Your task to perform on an android device: Go to notification settings Image 0: 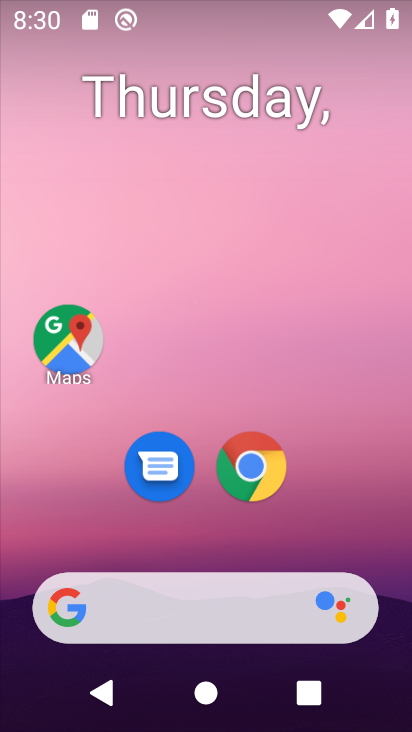
Step 0: drag from (210, 329) to (238, 18)
Your task to perform on an android device: Go to notification settings Image 1: 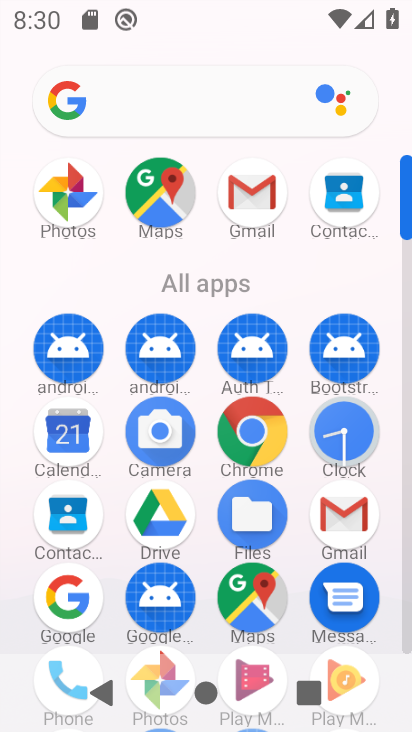
Step 1: drag from (171, 657) to (249, 342)
Your task to perform on an android device: Go to notification settings Image 2: 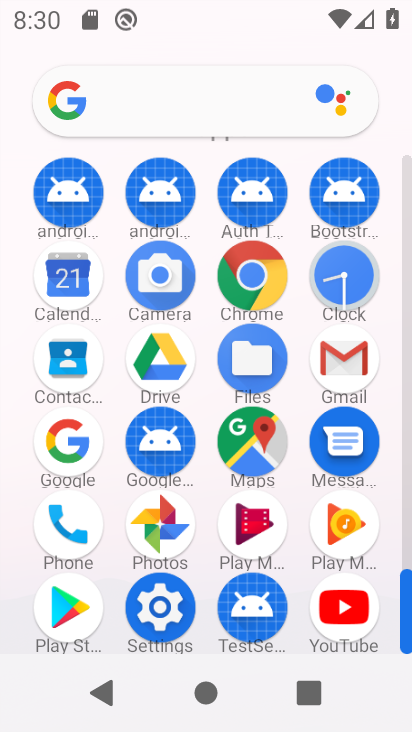
Step 2: click (164, 611)
Your task to perform on an android device: Go to notification settings Image 3: 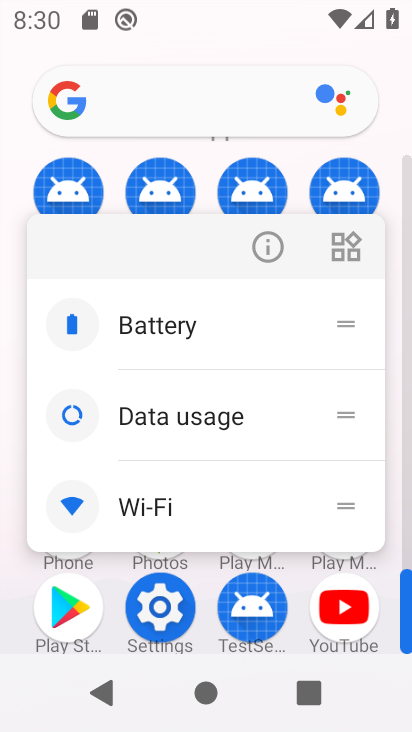
Step 3: click (175, 626)
Your task to perform on an android device: Go to notification settings Image 4: 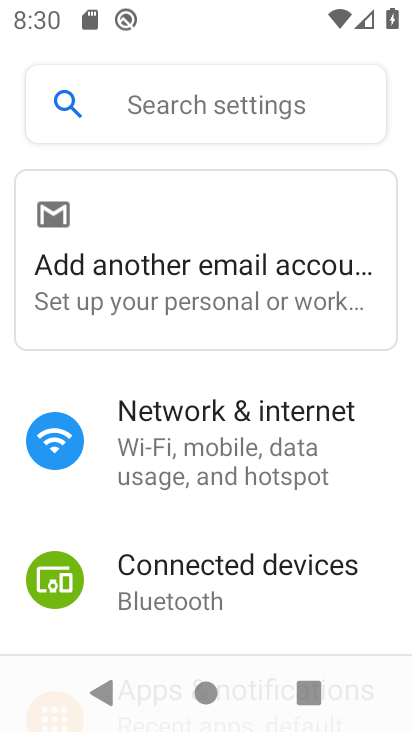
Step 4: drag from (207, 624) to (323, 258)
Your task to perform on an android device: Go to notification settings Image 5: 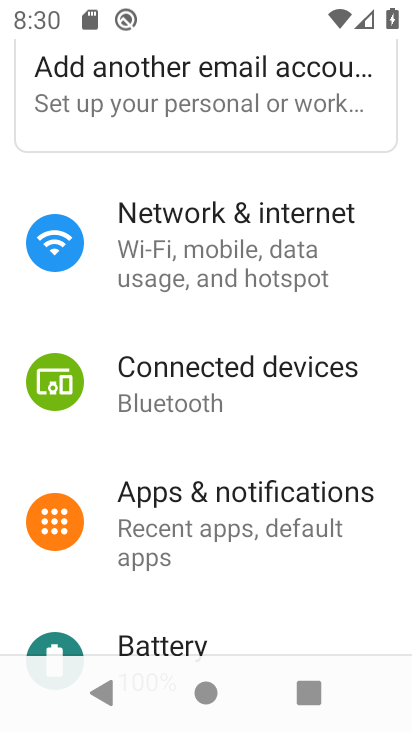
Step 5: click (253, 535)
Your task to perform on an android device: Go to notification settings Image 6: 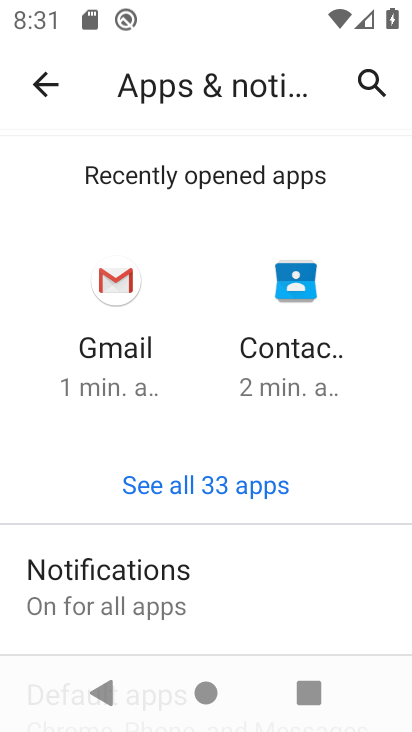
Step 6: task complete